Your task to perform on an android device: uninstall "Viber Messenger" Image 0: 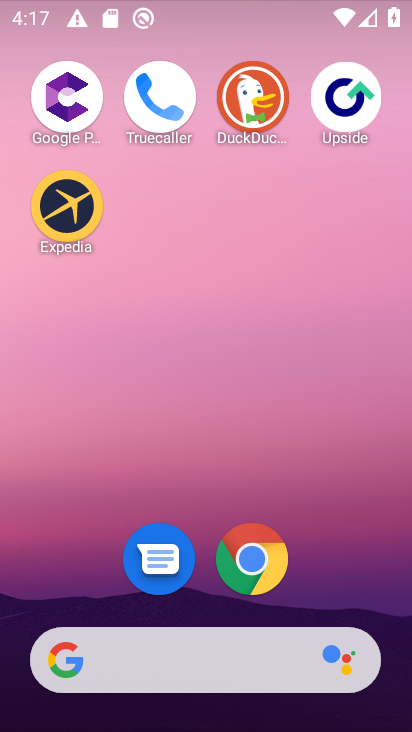
Step 0: drag from (207, 619) to (236, 200)
Your task to perform on an android device: uninstall "Viber Messenger" Image 1: 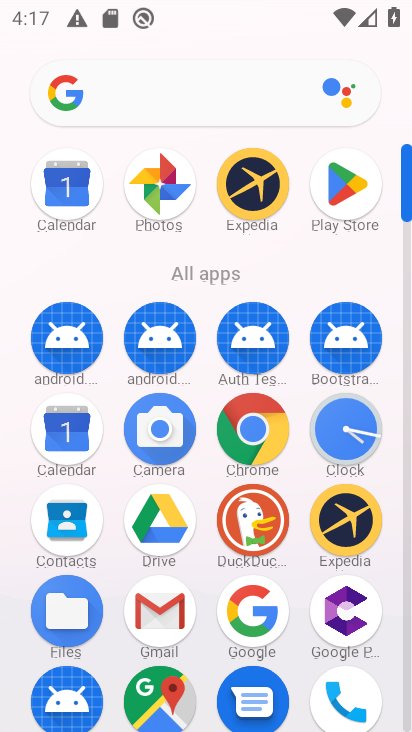
Step 1: click (332, 186)
Your task to perform on an android device: uninstall "Viber Messenger" Image 2: 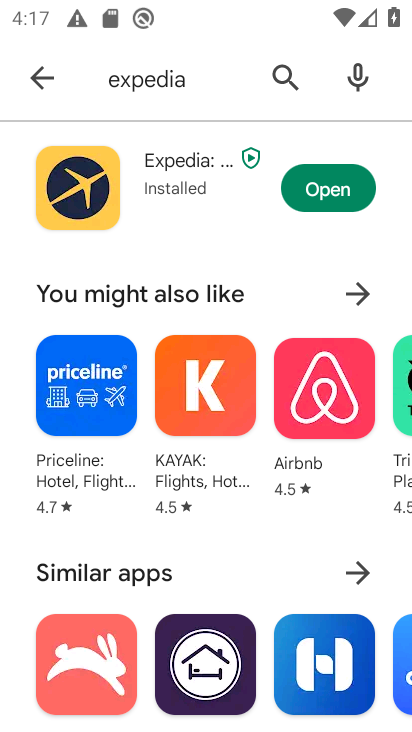
Step 2: click (206, 89)
Your task to perform on an android device: uninstall "Viber Messenger" Image 3: 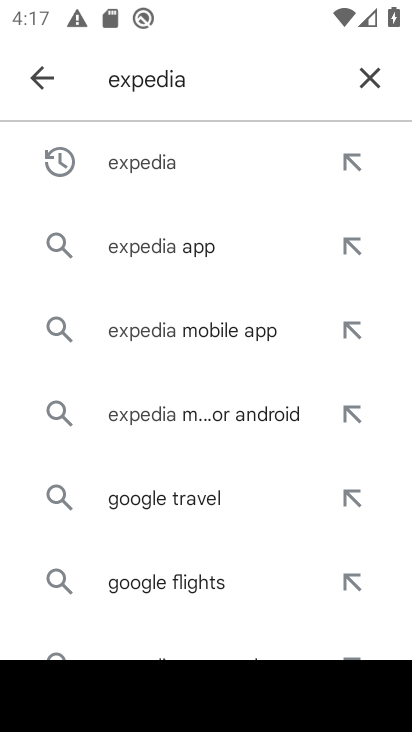
Step 3: click (348, 80)
Your task to perform on an android device: uninstall "Viber Messenger" Image 4: 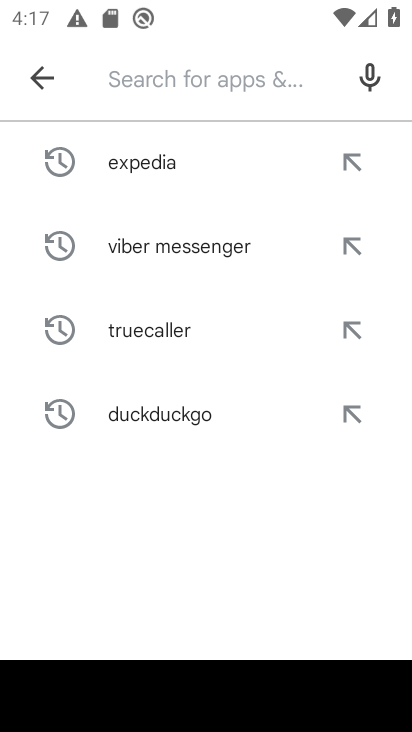
Step 4: type "Viber messenger"
Your task to perform on an android device: uninstall "Viber Messenger" Image 5: 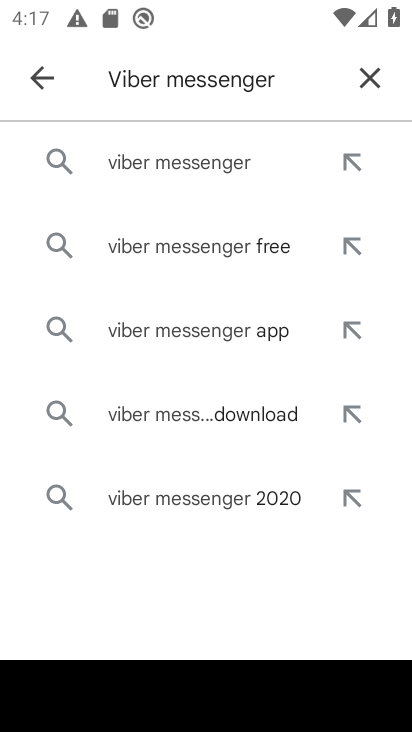
Step 5: click (130, 168)
Your task to perform on an android device: uninstall "Viber Messenger" Image 6: 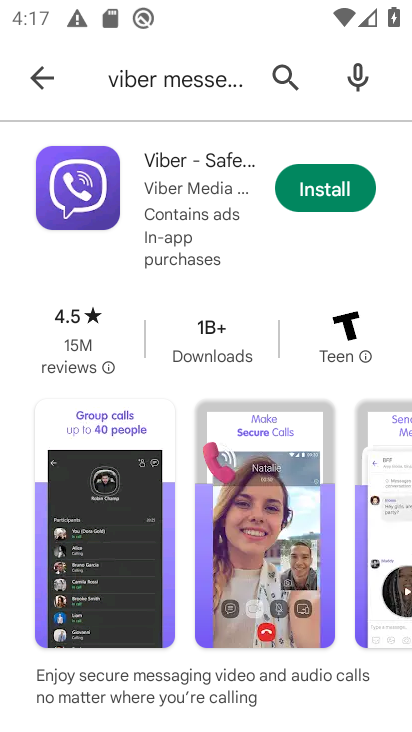
Step 6: task complete